Your task to perform on an android device: check android version Image 0: 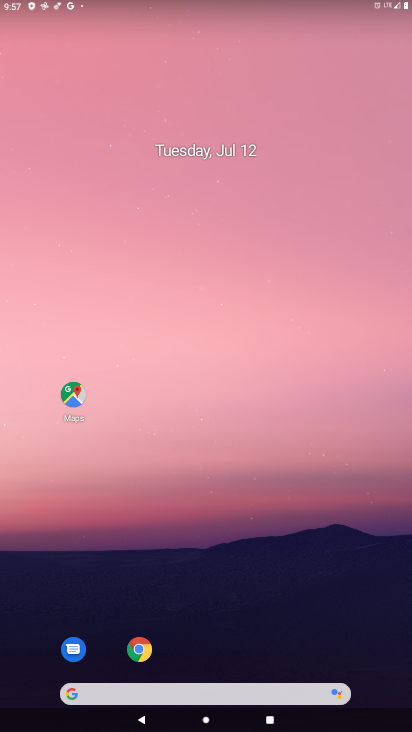
Step 0: drag from (256, 649) to (267, 221)
Your task to perform on an android device: check android version Image 1: 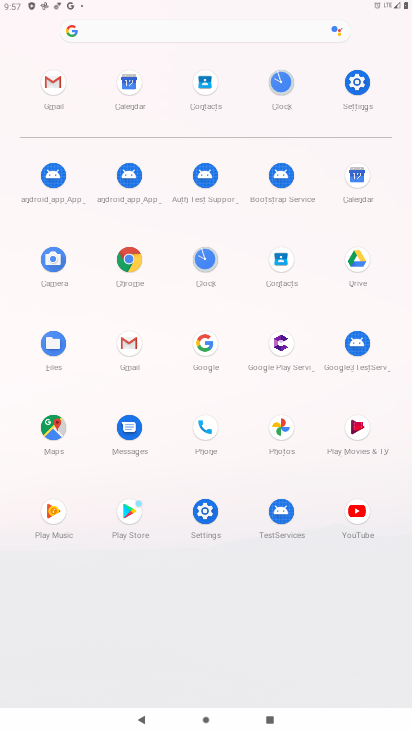
Step 1: click (342, 105)
Your task to perform on an android device: check android version Image 2: 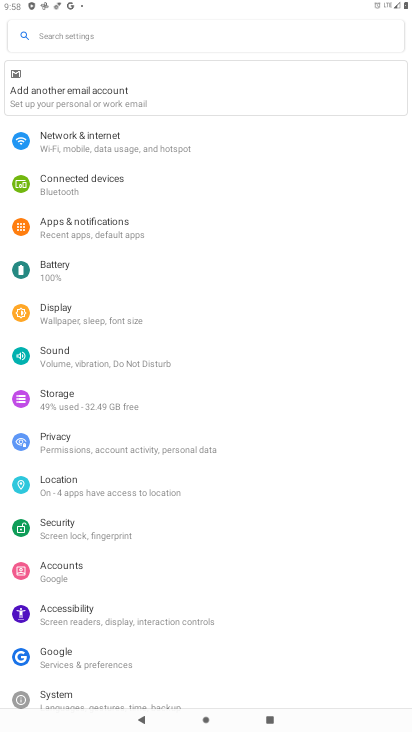
Step 2: drag from (128, 653) to (141, 559)
Your task to perform on an android device: check android version Image 3: 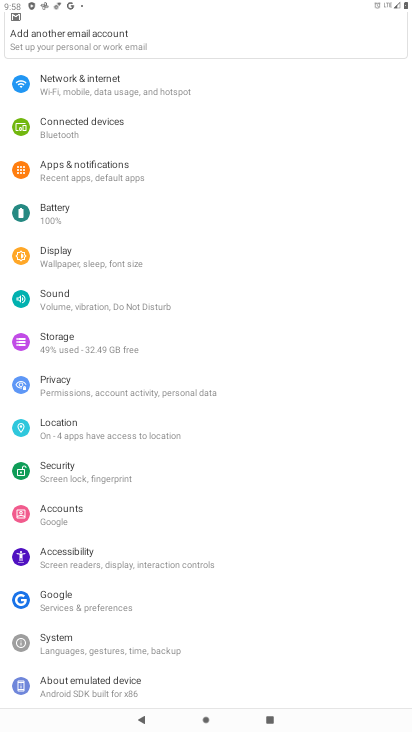
Step 3: click (120, 675)
Your task to perform on an android device: check android version Image 4: 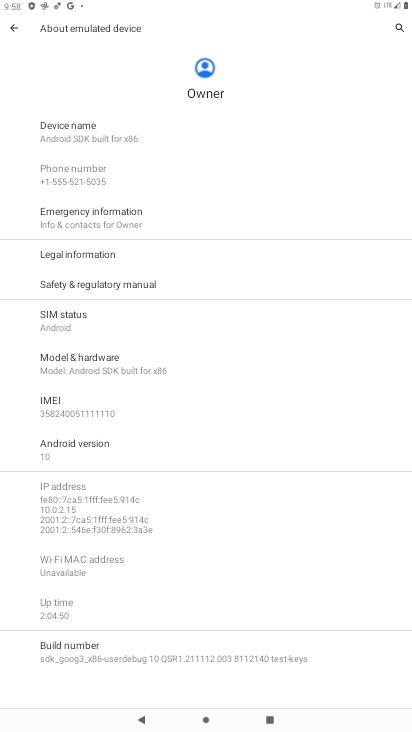
Step 4: task complete